Your task to perform on an android device: What's the US dollar exchange rateagainst the Swiss Franc? Image 0: 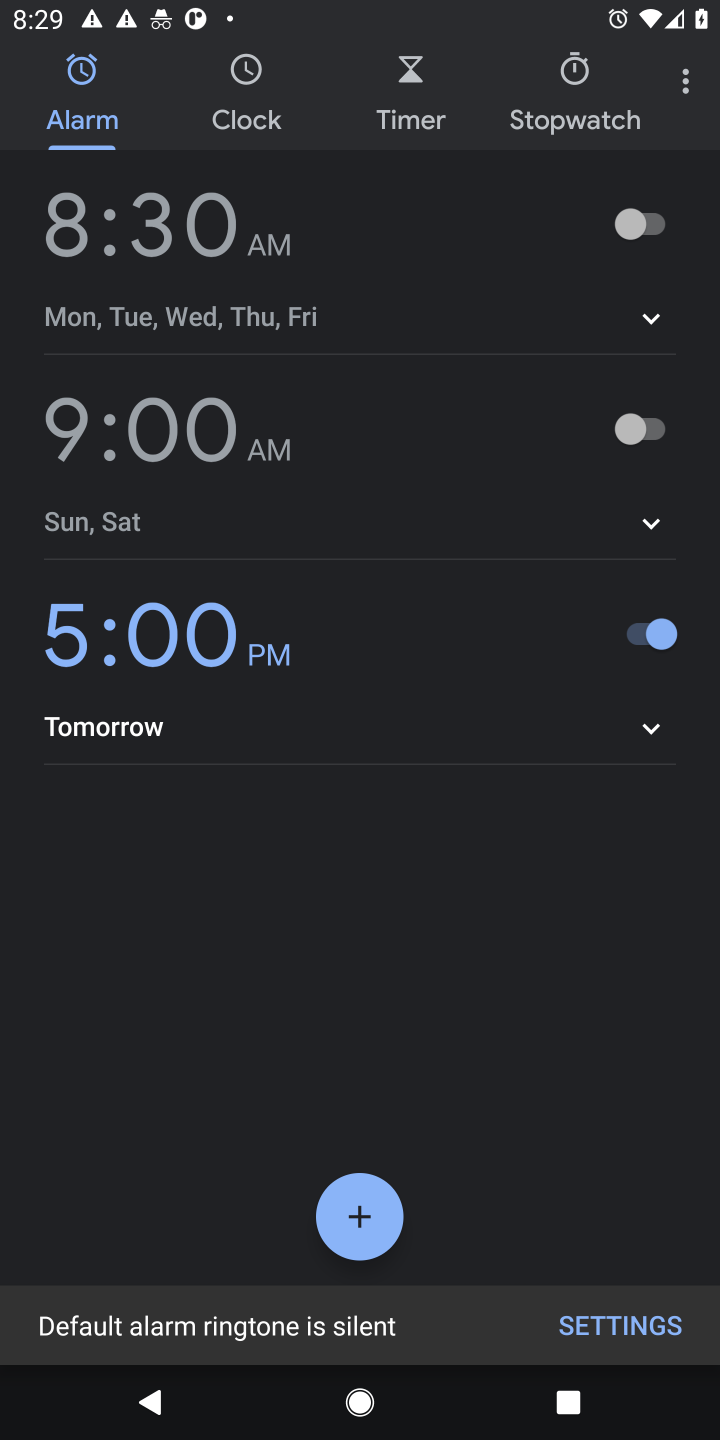
Step 0: press home button
Your task to perform on an android device: What's the US dollar exchange rateagainst the Swiss Franc? Image 1: 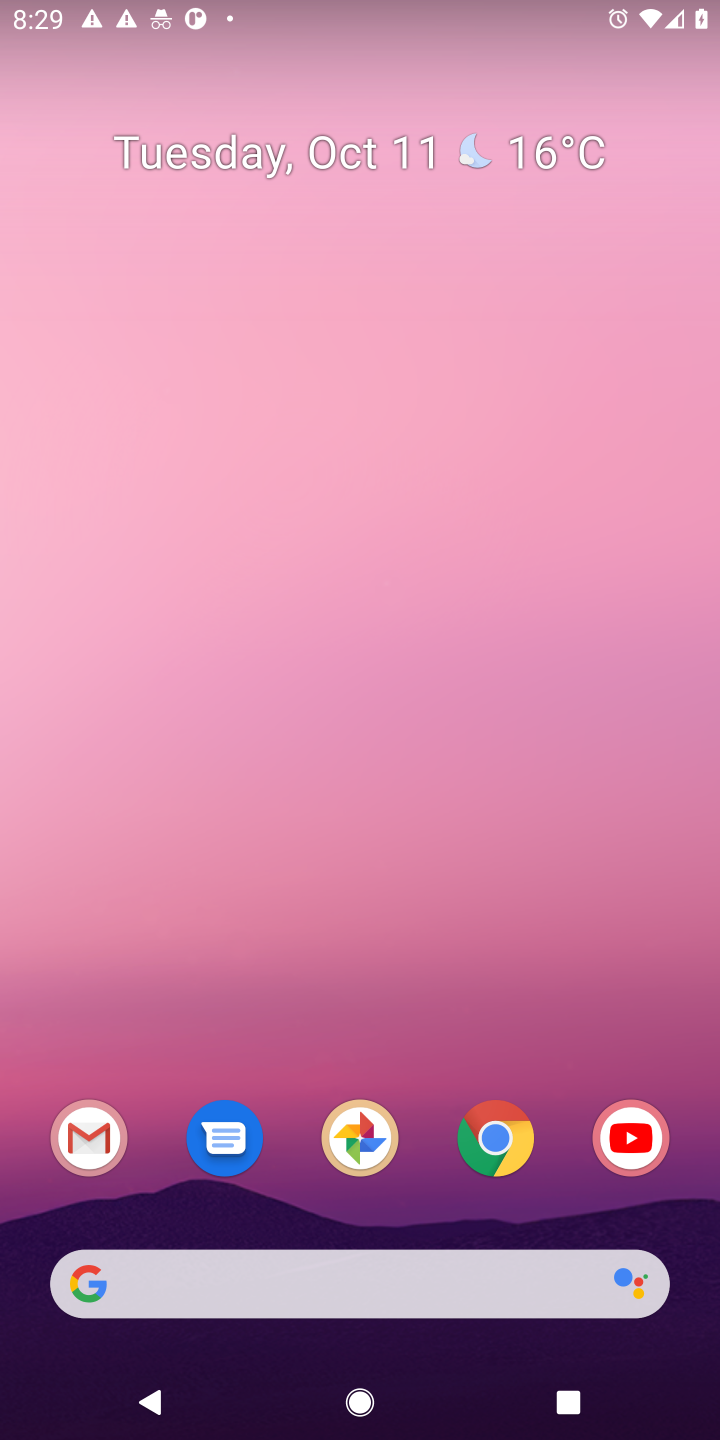
Step 1: click (461, 1270)
Your task to perform on an android device: What's the US dollar exchange rateagainst the Swiss Franc? Image 2: 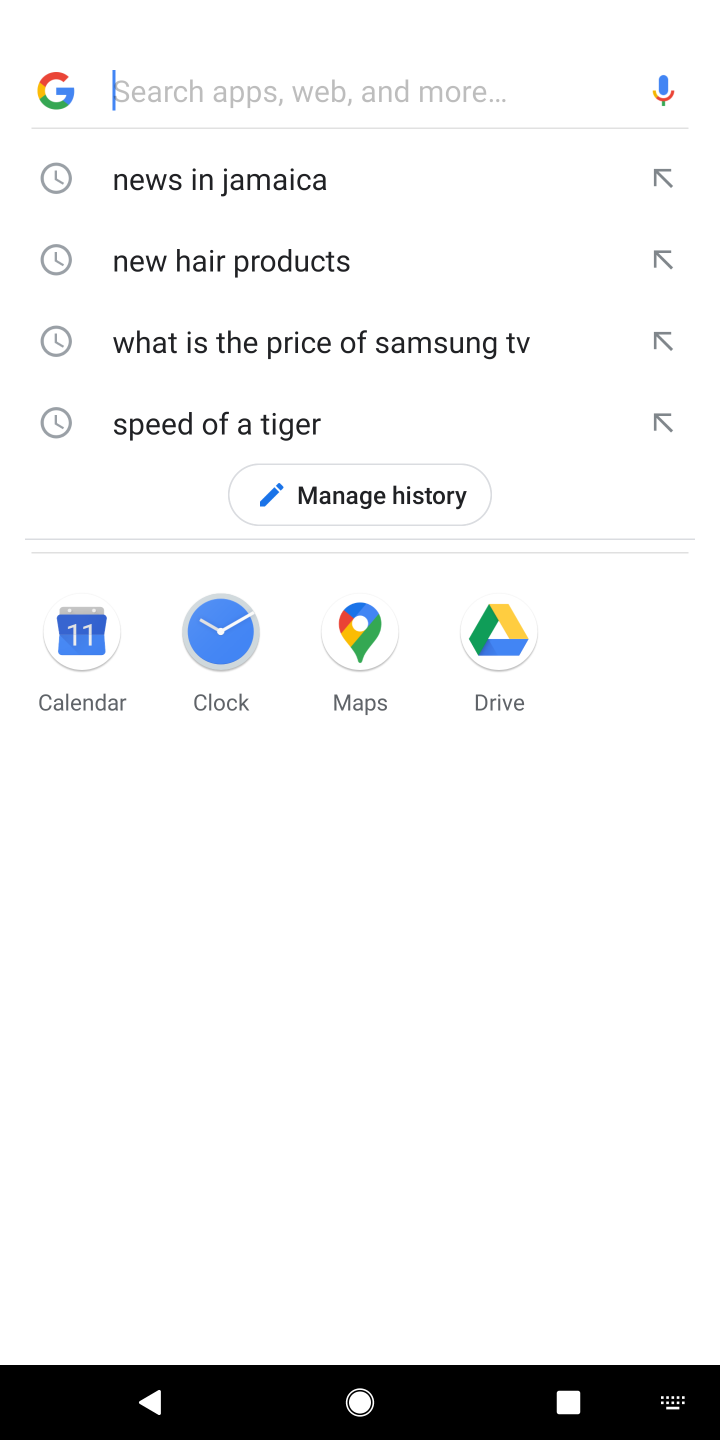
Step 2: type "What's the US dollar exchange rateagainst the Swiss Franc?"
Your task to perform on an android device: What's the US dollar exchange rateagainst the Swiss Franc? Image 3: 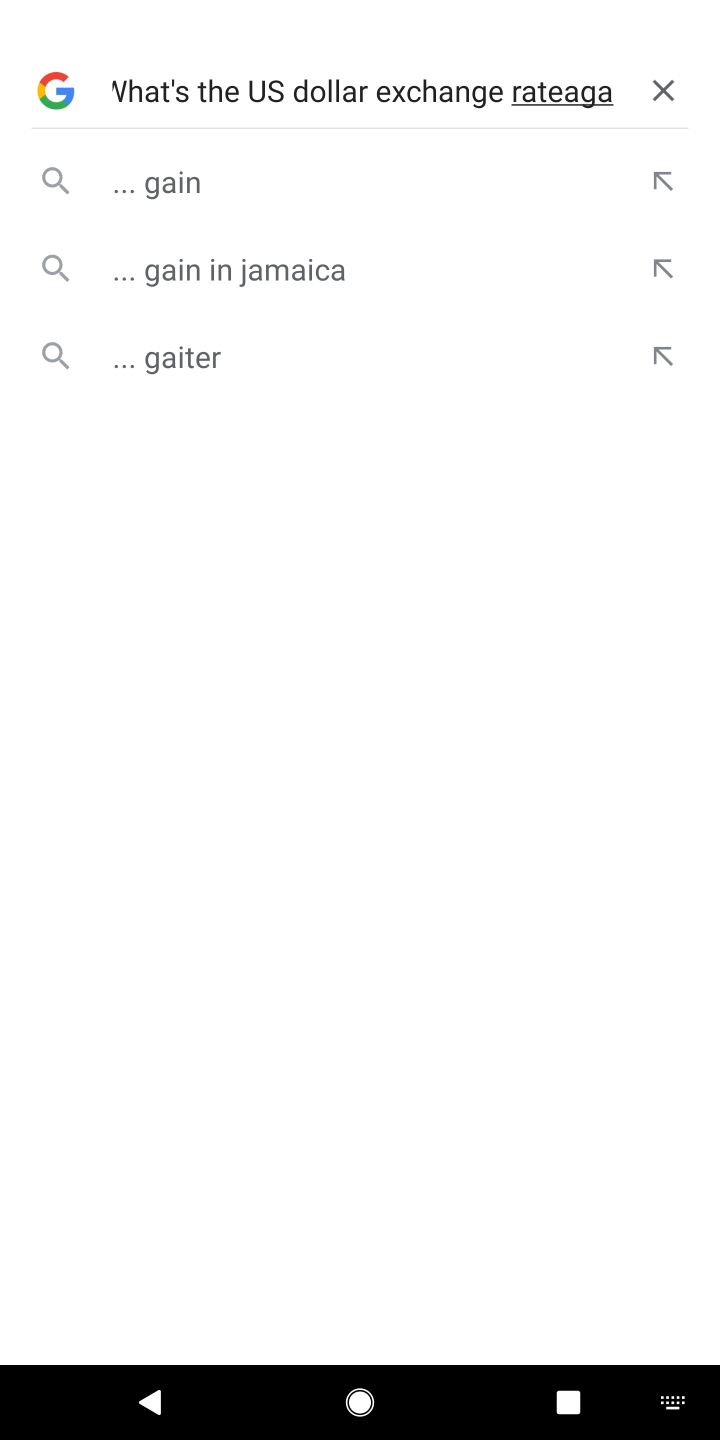
Step 3: type "inst the swiss franc"
Your task to perform on an android device: What's the US dollar exchange rateagainst the Swiss Franc? Image 4: 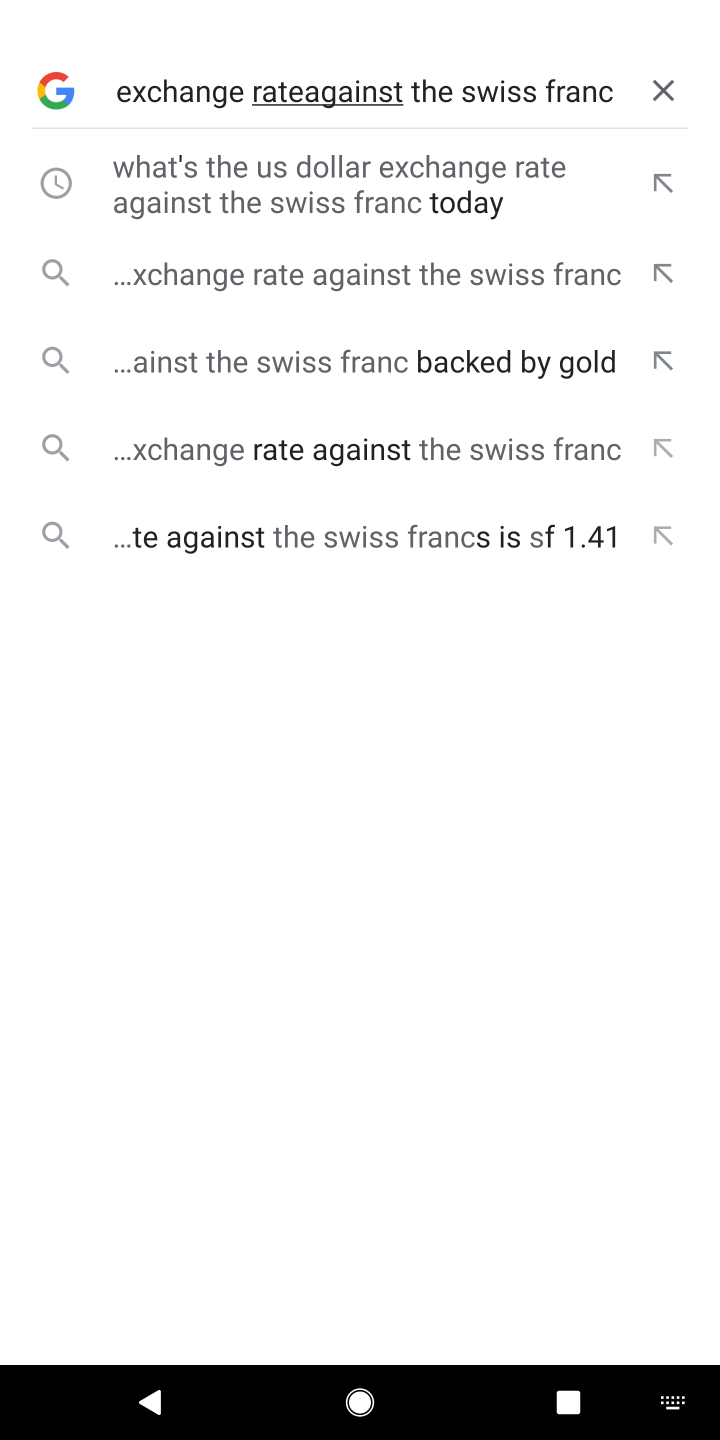
Step 4: click (365, 276)
Your task to perform on an android device: What's the US dollar exchange rateagainst the Swiss Franc? Image 5: 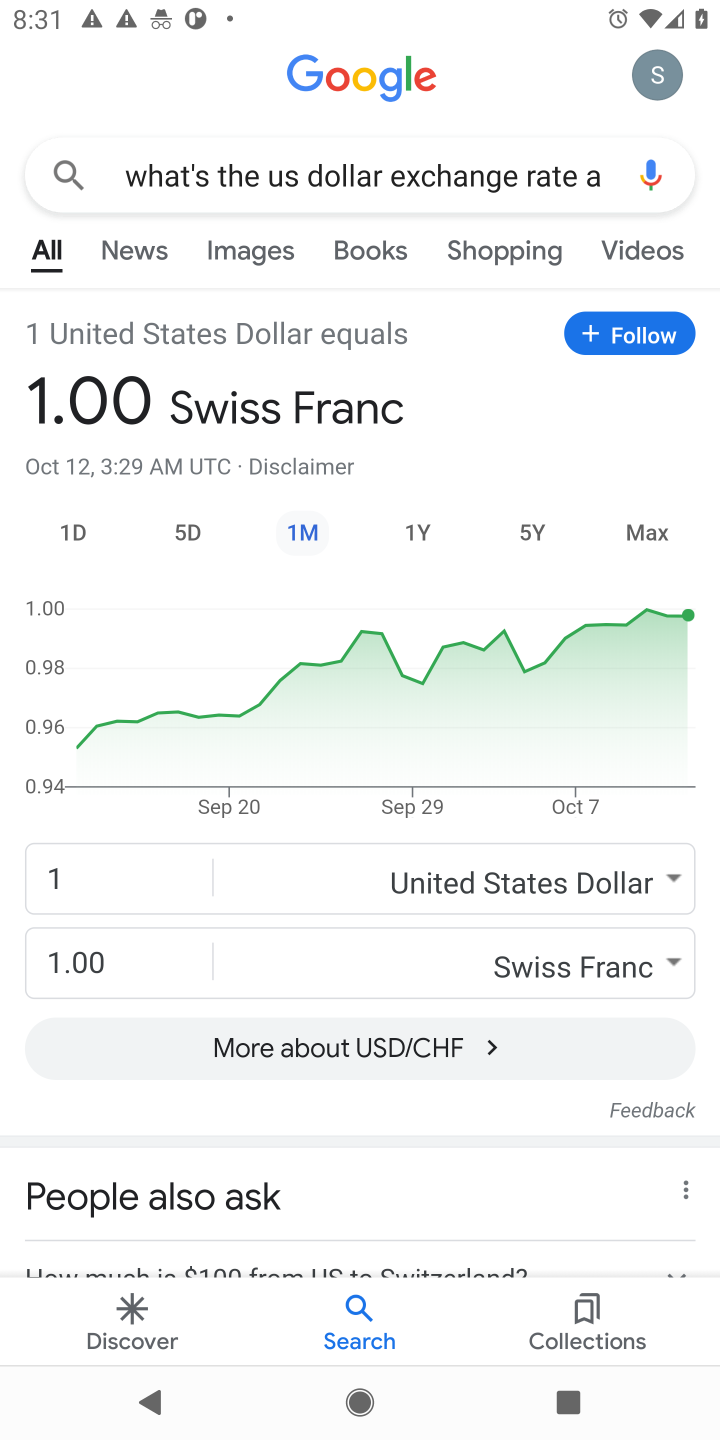
Step 5: task complete